Your task to perform on an android device: Clear all items from cart on newegg. Search for razer naga on newegg, select the first entry, and add it to the cart. Image 0: 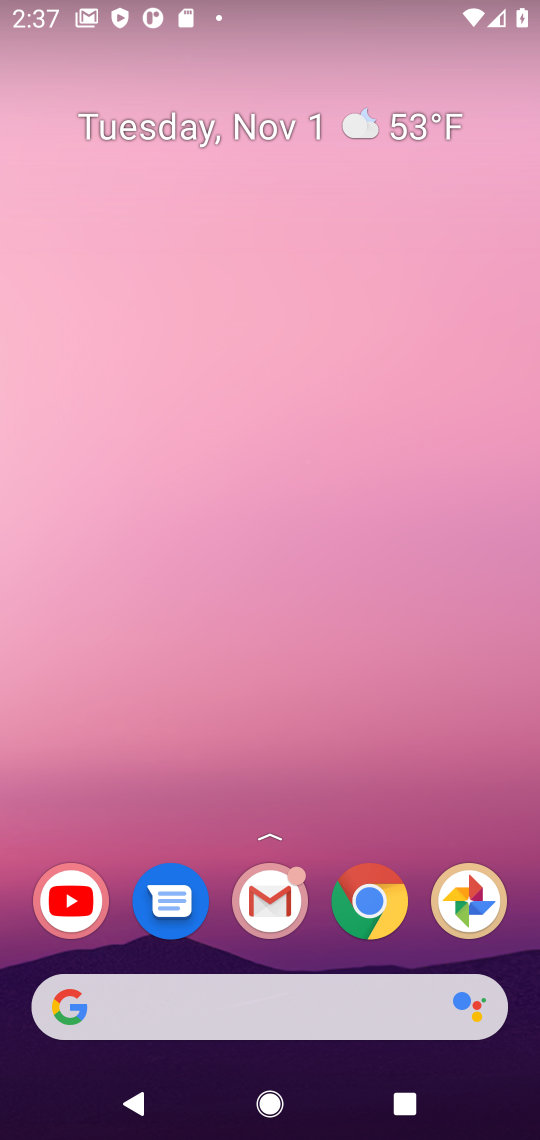
Step 0: click (373, 928)
Your task to perform on an android device: Clear all items from cart on newegg. Search for razer naga on newegg, select the first entry, and add it to the cart. Image 1: 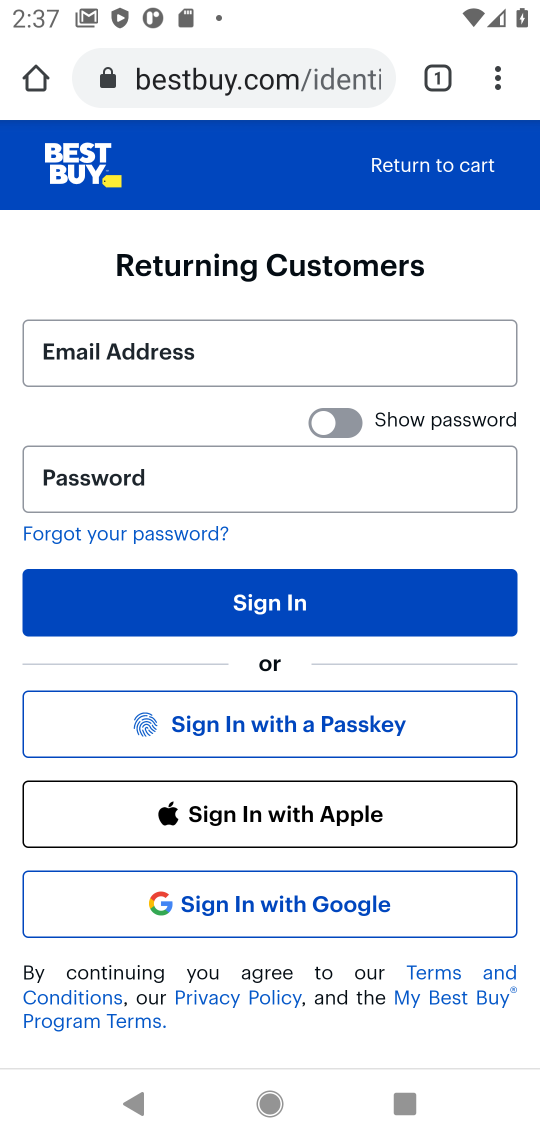
Step 1: click (258, 85)
Your task to perform on an android device: Clear all items from cart on newegg. Search for razer naga on newegg, select the first entry, and add it to the cart. Image 2: 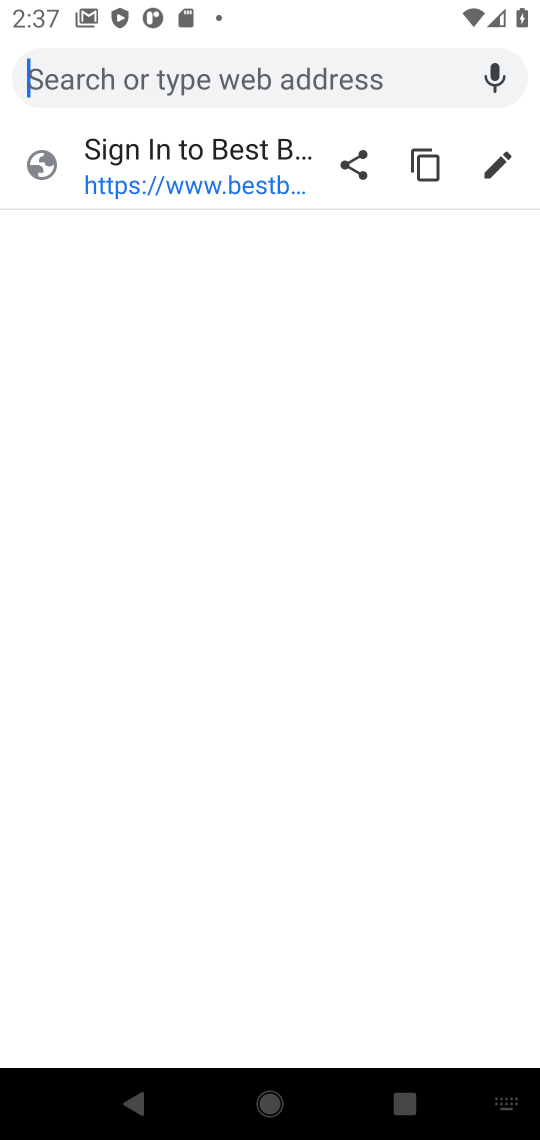
Step 2: type "newegg"
Your task to perform on an android device: Clear all items from cart on newegg. Search for razer naga on newegg, select the first entry, and add it to the cart. Image 3: 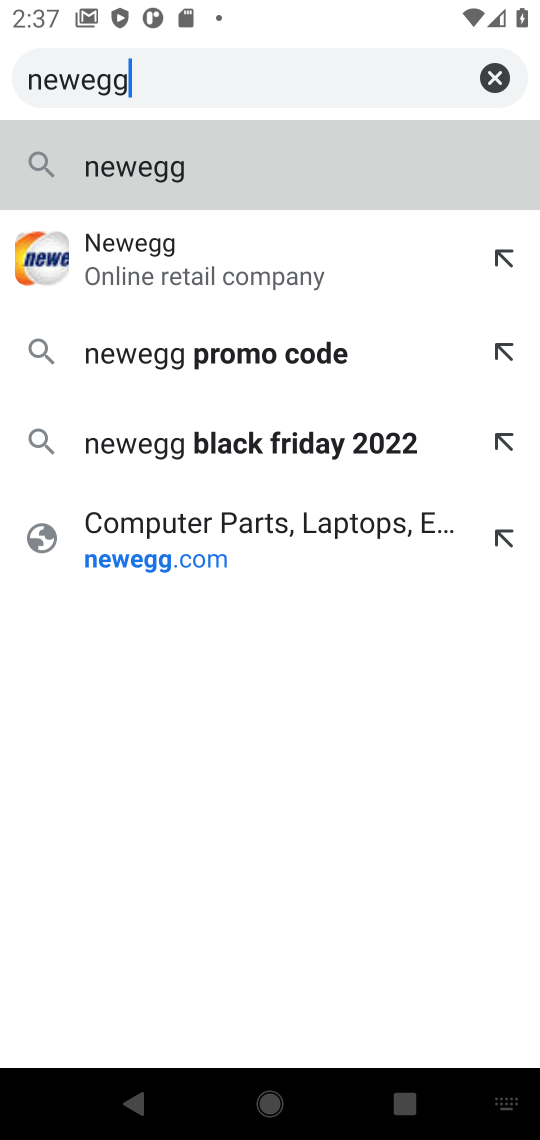
Step 3: click (191, 165)
Your task to perform on an android device: Clear all items from cart on newegg. Search for razer naga on newegg, select the first entry, and add it to the cart. Image 4: 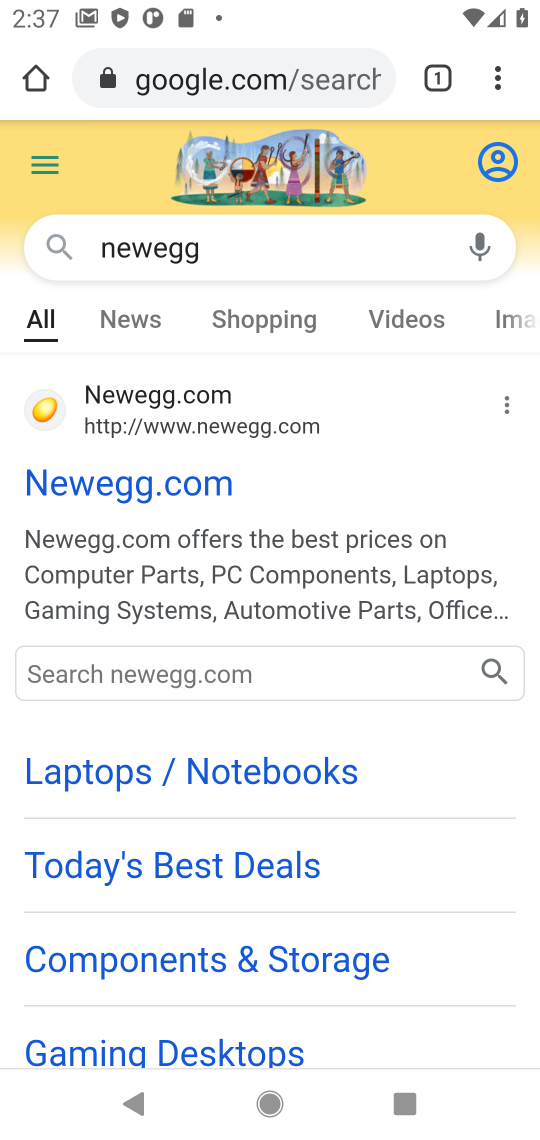
Step 4: click (94, 490)
Your task to perform on an android device: Clear all items from cart on newegg. Search for razer naga on newegg, select the first entry, and add it to the cart. Image 5: 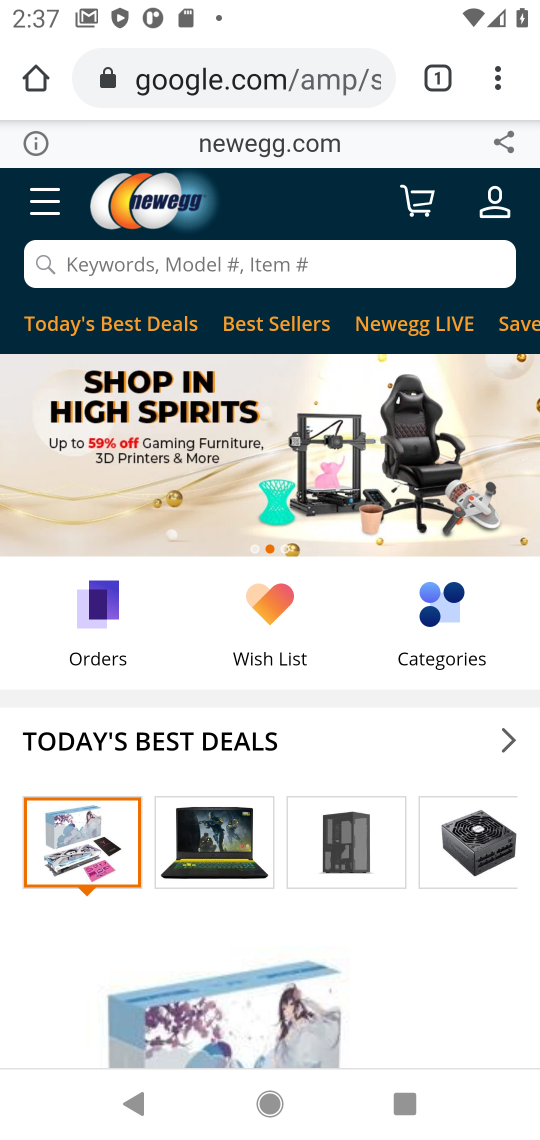
Step 5: drag from (379, 762) to (297, 691)
Your task to perform on an android device: Clear all items from cart on newegg. Search for razer naga on newegg, select the first entry, and add it to the cart. Image 6: 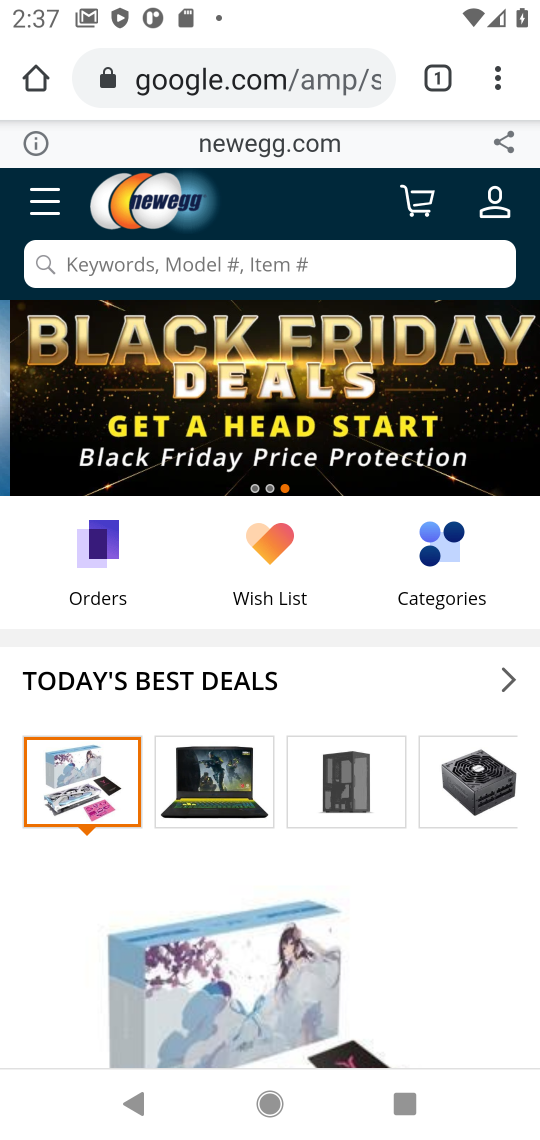
Step 6: click (497, 207)
Your task to perform on an android device: Clear all items from cart on newegg. Search for razer naga on newegg, select the first entry, and add it to the cart. Image 7: 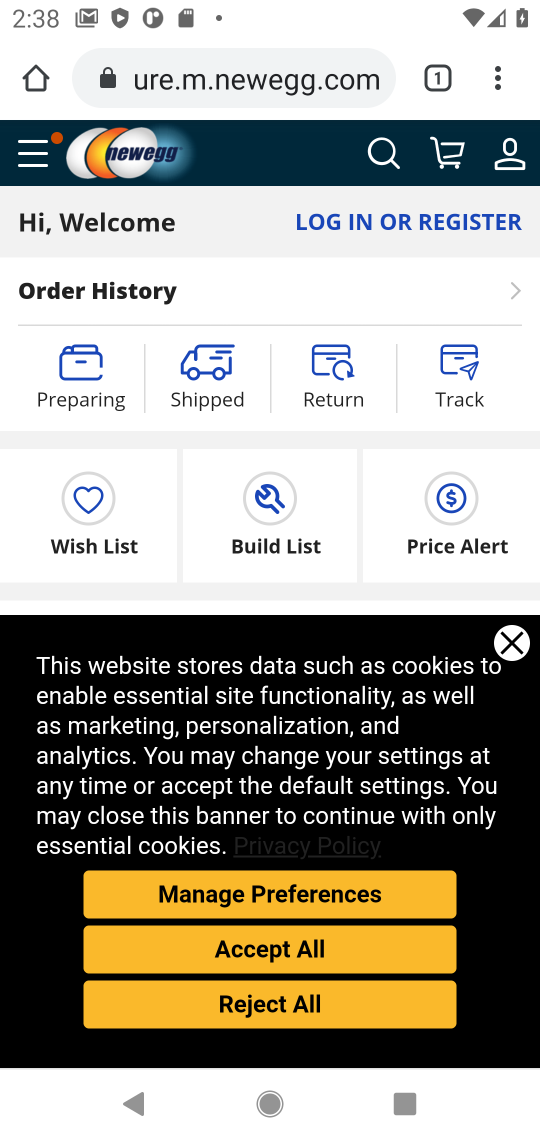
Step 7: click (269, 956)
Your task to perform on an android device: Clear all items from cart on newegg. Search for razer naga on newegg, select the first entry, and add it to the cart. Image 8: 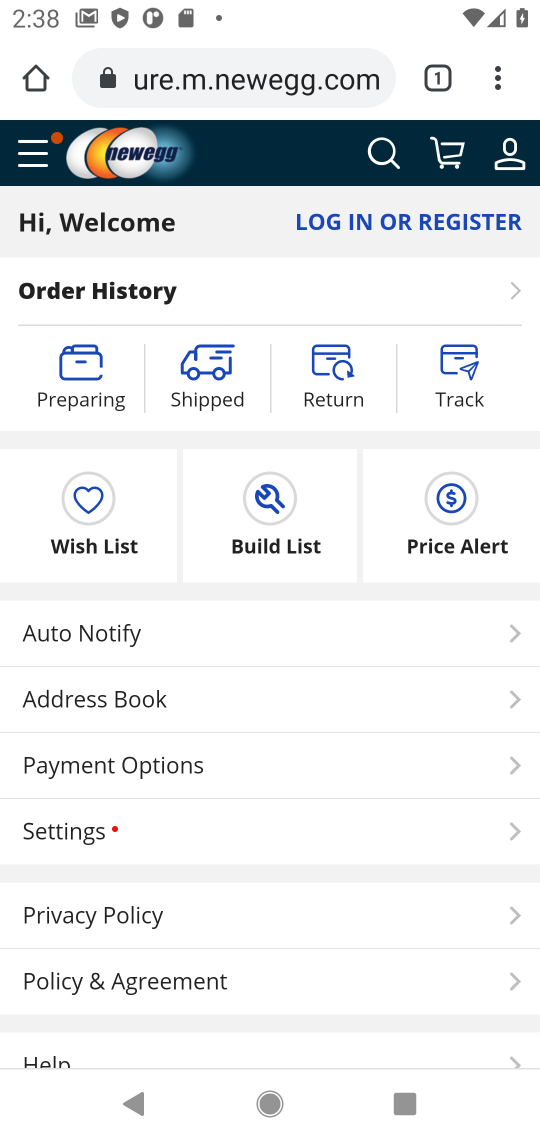
Step 8: click (516, 156)
Your task to perform on an android device: Clear all items from cart on newegg. Search for razer naga on newegg, select the first entry, and add it to the cart. Image 9: 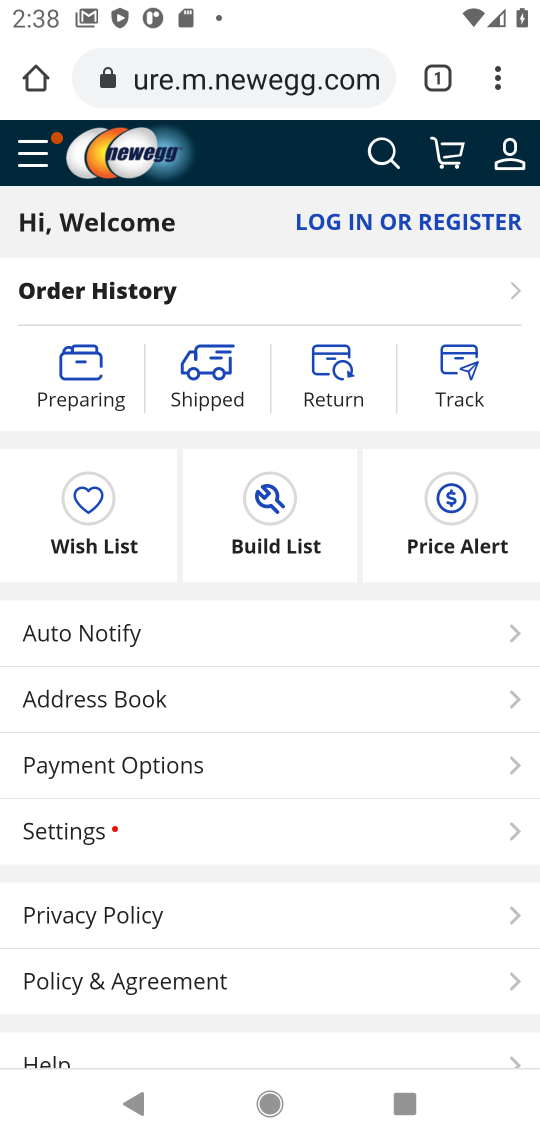
Step 9: click (457, 164)
Your task to perform on an android device: Clear all items from cart on newegg. Search for razer naga on newegg, select the first entry, and add it to the cart. Image 10: 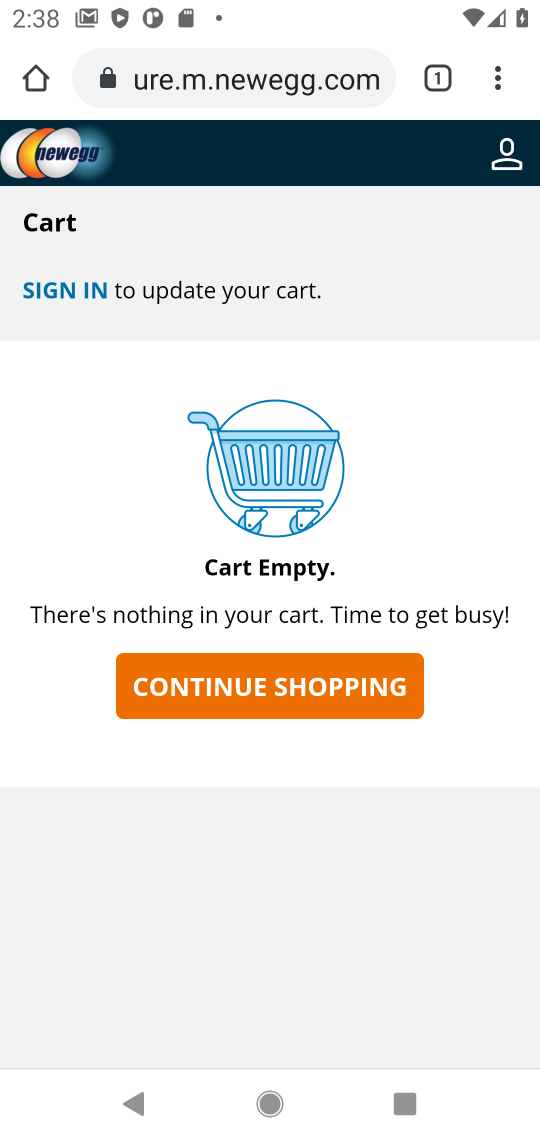
Step 10: click (366, 692)
Your task to perform on an android device: Clear all items from cart on newegg. Search for razer naga on newegg, select the first entry, and add it to the cart. Image 11: 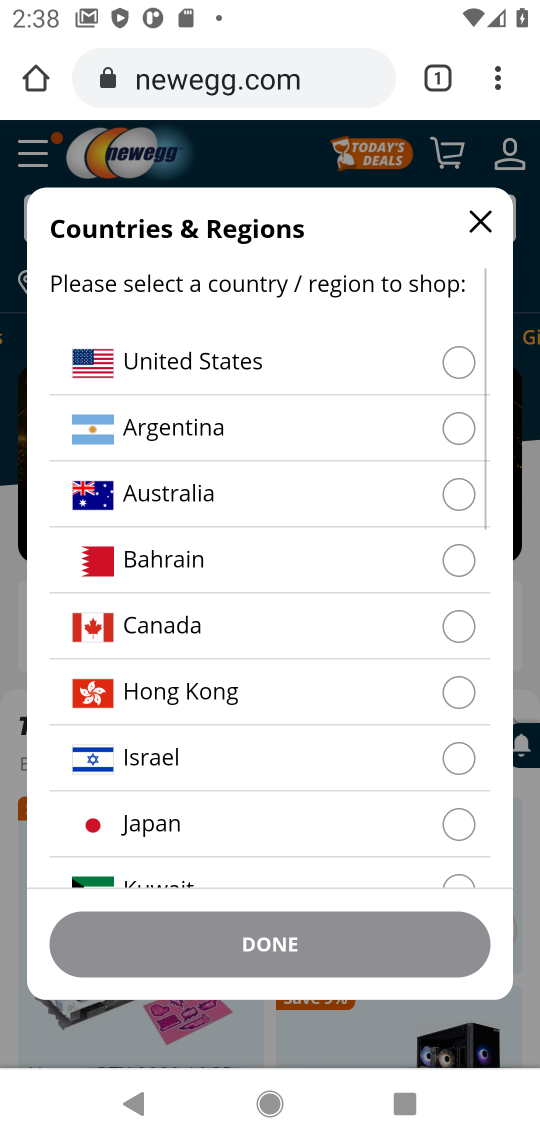
Step 11: click (317, 216)
Your task to perform on an android device: Clear all items from cart on newegg. Search for razer naga on newegg, select the first entry, and add it to the cart. Image 12: 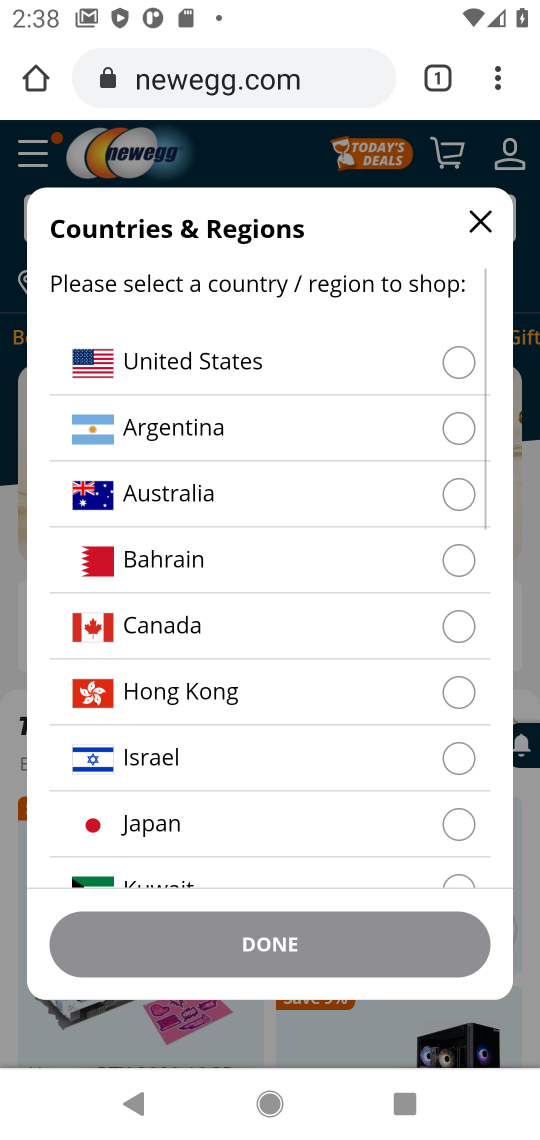
Step 12: click (485, 218)
Your task to perform on an android device: Clear all items from cart on newegg. Search for razer naga on newegg, select the first entry, and add it to the cart. Image 13: 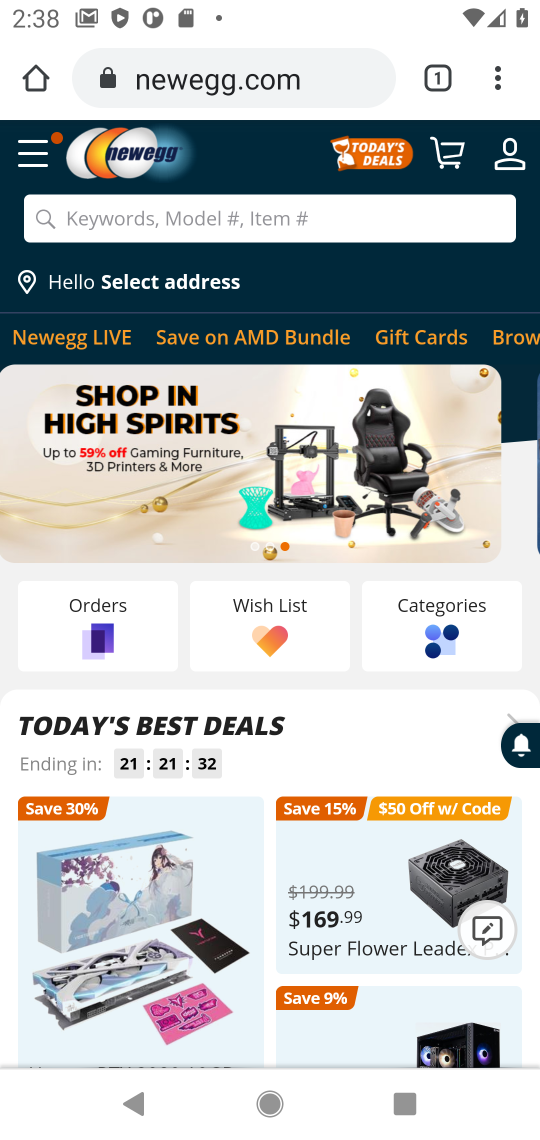
Step 13: click (258, 209)
Your task to perform on an android device: Clear all items from cart on newegg. Search for razer naga on newegg, select the first entry, and add it to the cart. Image 14: 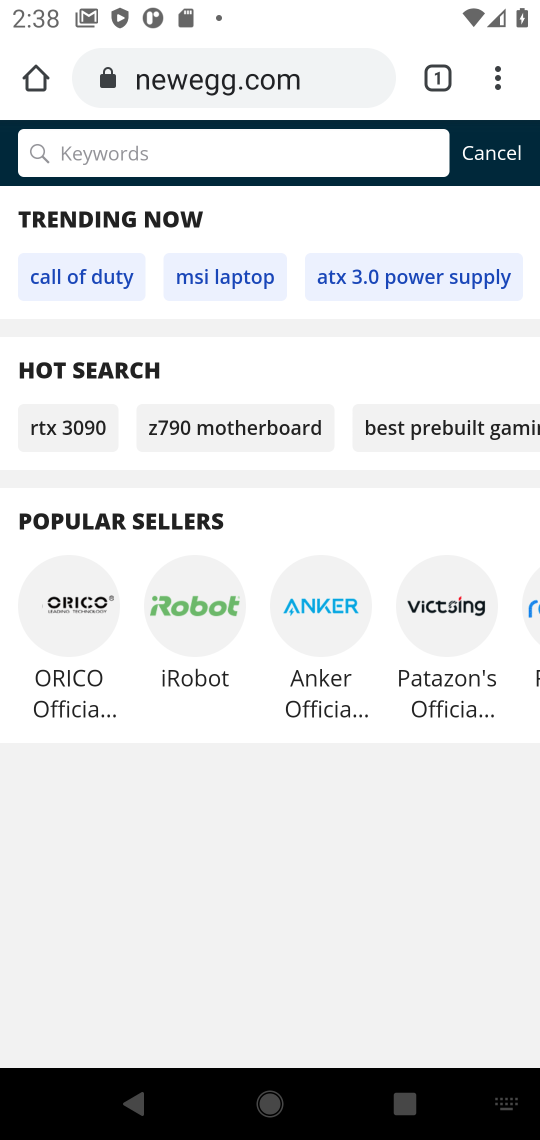
Step 14: type "razer naga"
Your task to perform on an android device: Clear all items from cart on newegg. Search for razer naga on newegg, select the first entry, and add it to the cart. Image 15: 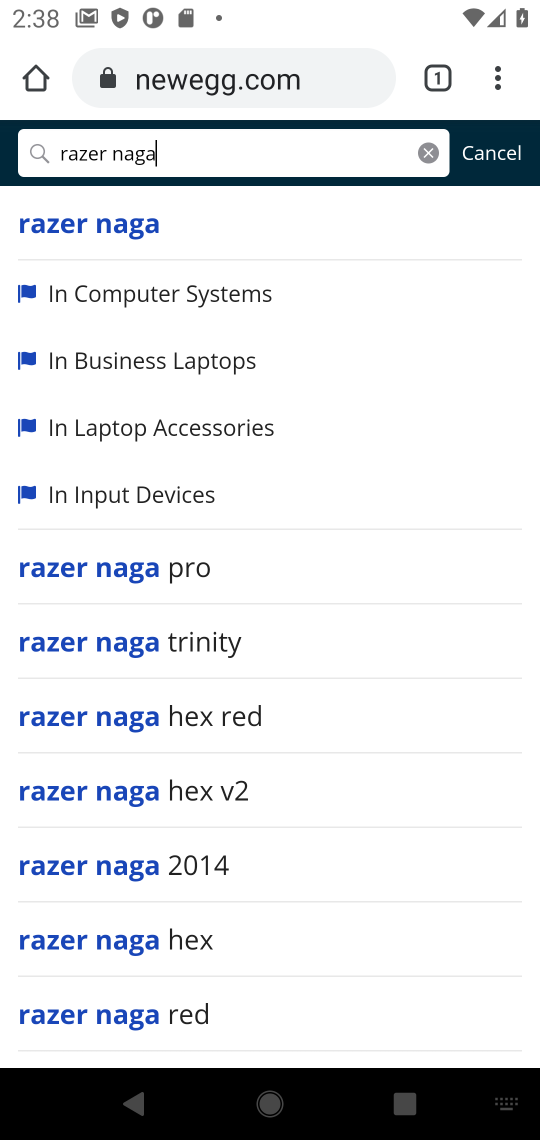
Step 15: press enter
Your task to perform on an android device: Clear all items from cart on newegg. Search for razer naga on newegg, select the first entry, and add it to the cart. Image 16: 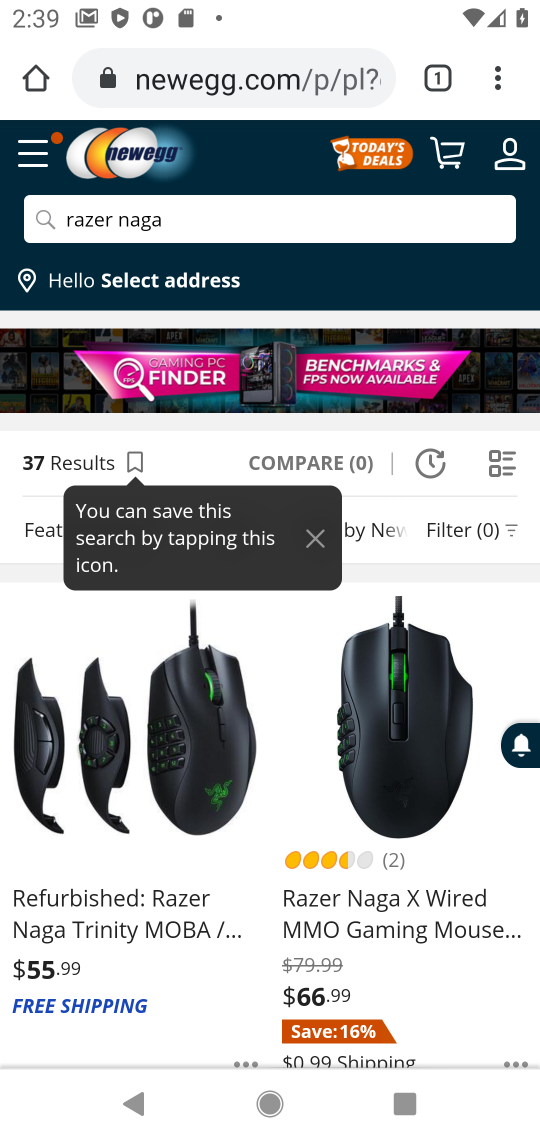
Step 16: click (147, 898)
Your task to perform on an android device: Clear all items from cart on newegg. Search for razer naga on newegg, select the first entry, and add it to the cart. Image 17: 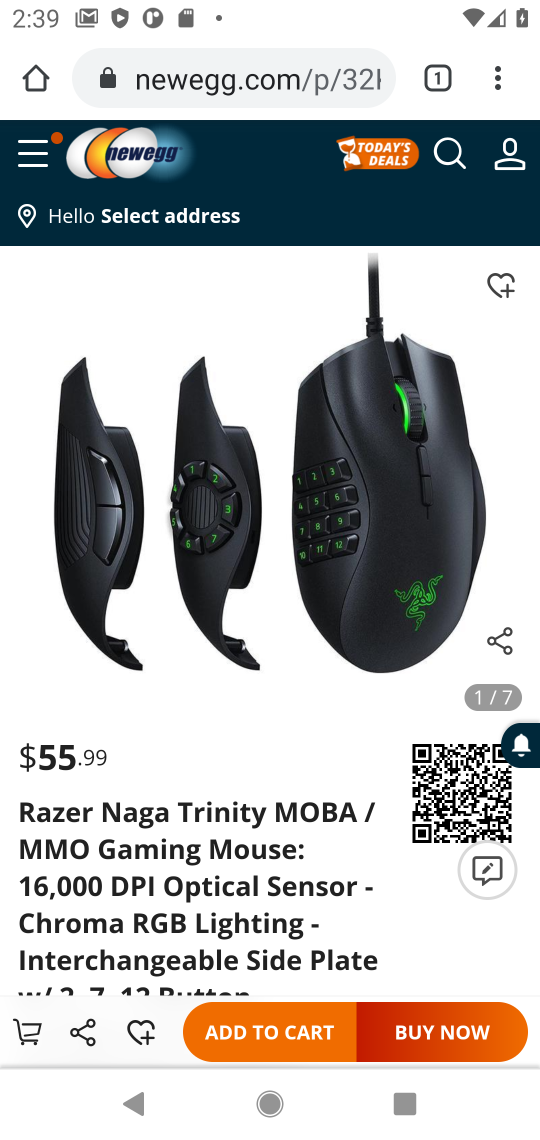
Step 17: click (273, 1049)
Your task to perform on an android device: Clear all items from cart on newegg. Search for razer naga on newegg, select the first entry, and add it to the cart. Image 18: 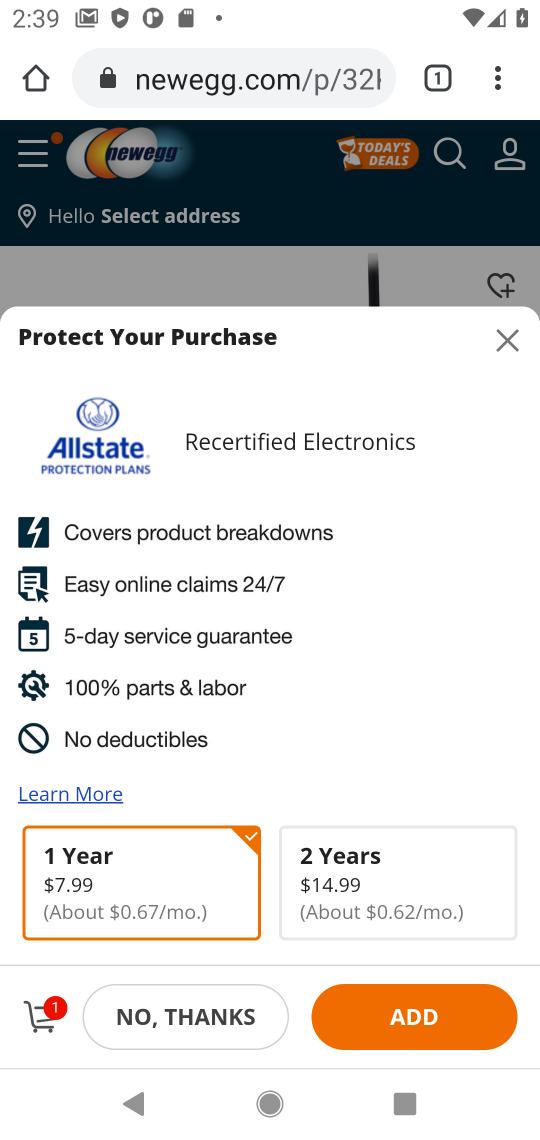
Step 18: click (273, 1049)
Your task to perform on an android device: Clear all items from cart on newegg. Search for razer naga on newegg, select the first entry, and add it to the cart. Image 19: 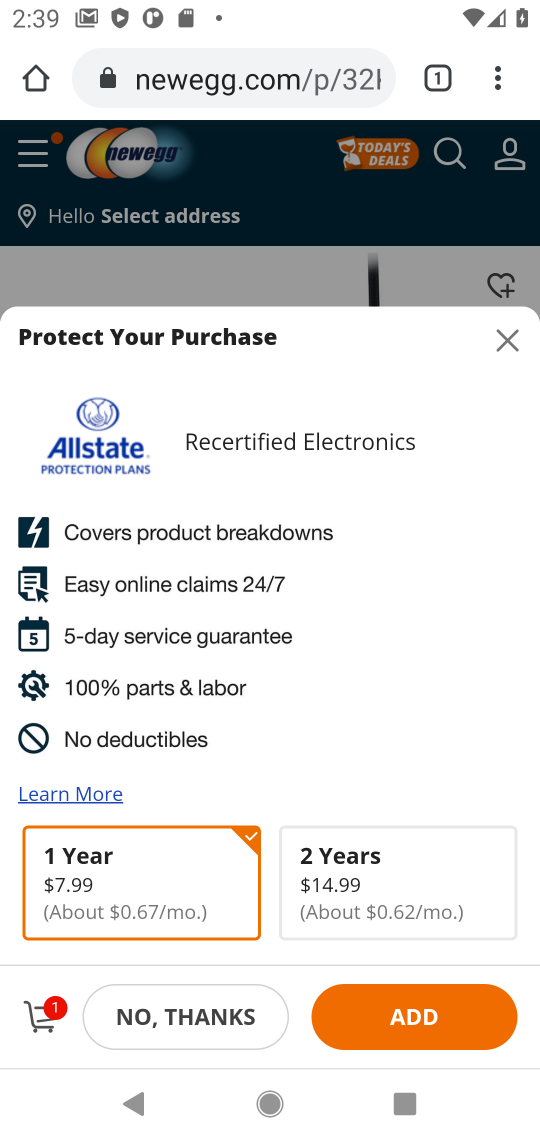
Step 19: click (226, 1012)
Your task to perform on an android device: Clear all items from cart on newegg. Search for razer naga on newegg, select the first entry, and add it to the cart. Image 20: 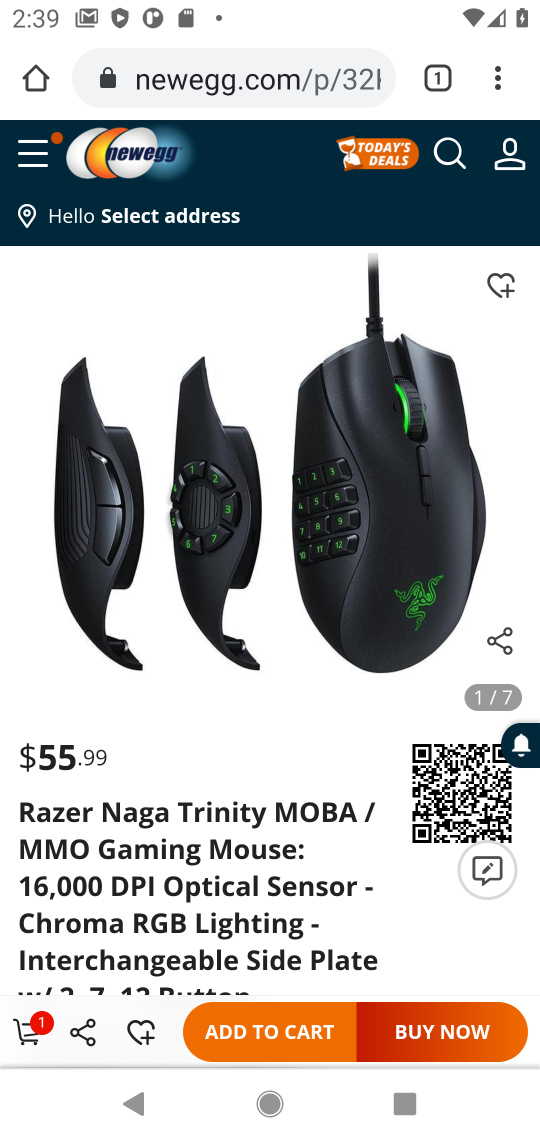
Step 20: task complete